Your task to perform on an android device: turn on showing notifications on the lock screen Image 0: 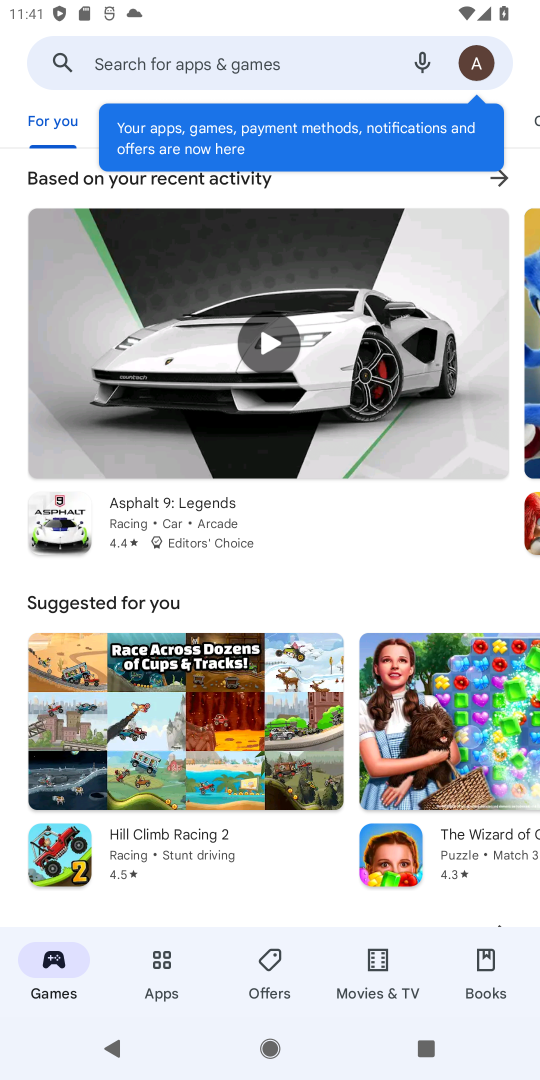
Step 0: press home button
Your task to perform on an android device: turn on showing notifications on the lock screen Image 1: 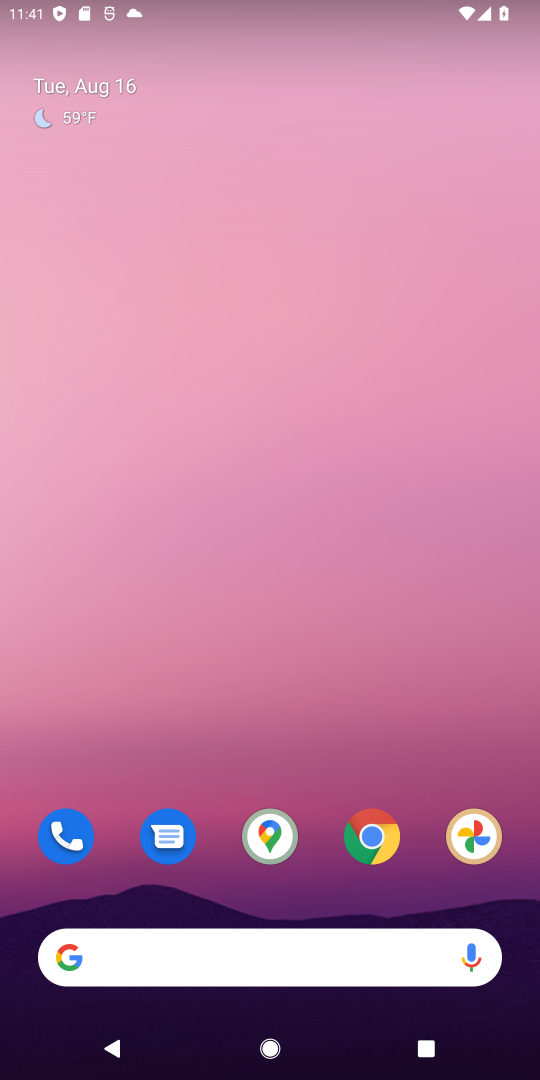
Step 1: drag from (235, 967) to (283, 275)
Your task to perform on an android device: turn on showing notifications on the lock screen Image 2: 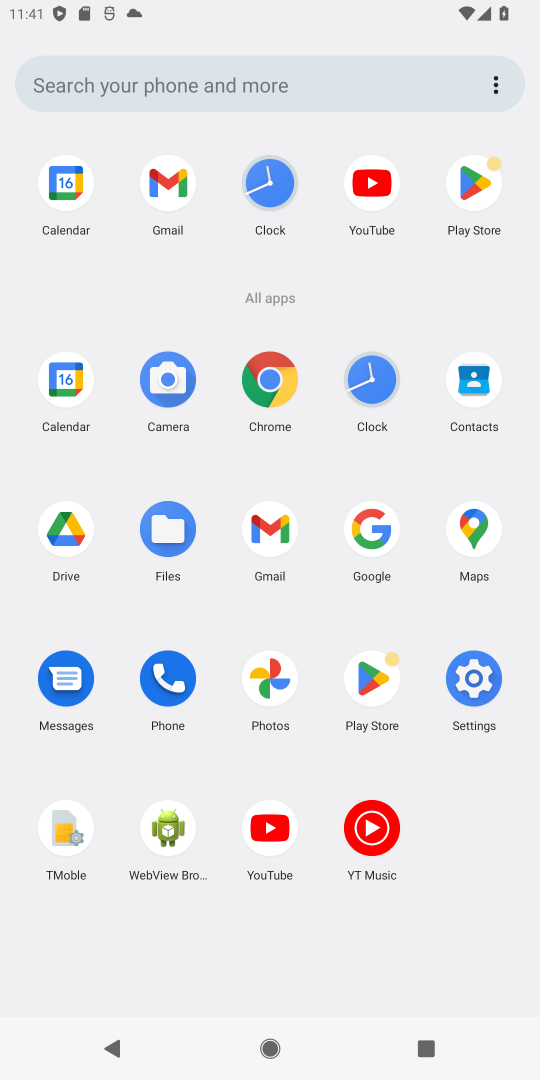
Step 2: click (472, 678)
Your task to perform on an android device: turn on showing notifications on the lock screen Image 3: 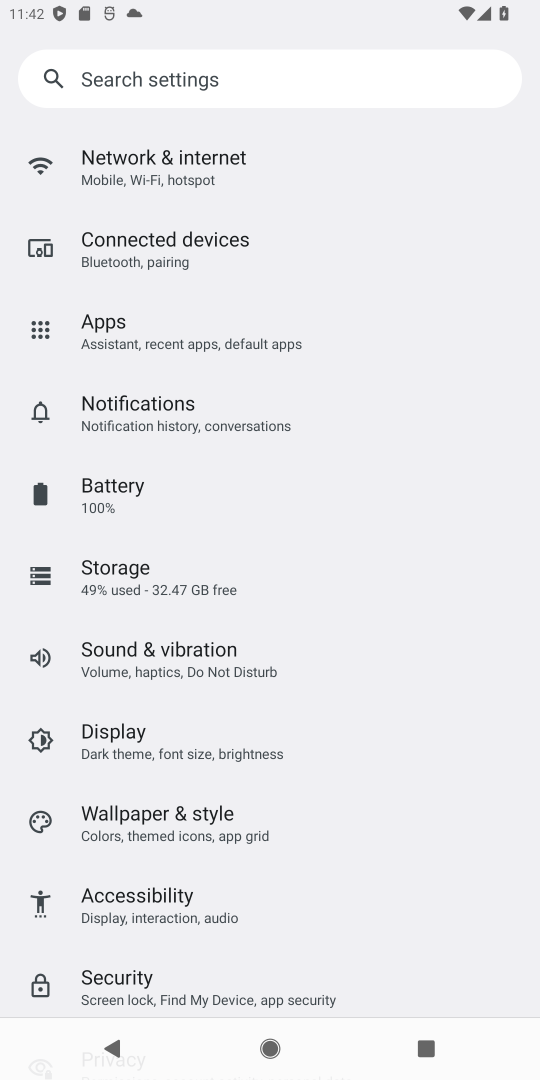
Step 3: click (169, 410)
Your task to perform on an android device: turn on showing notifications on the lock screen Image 4: 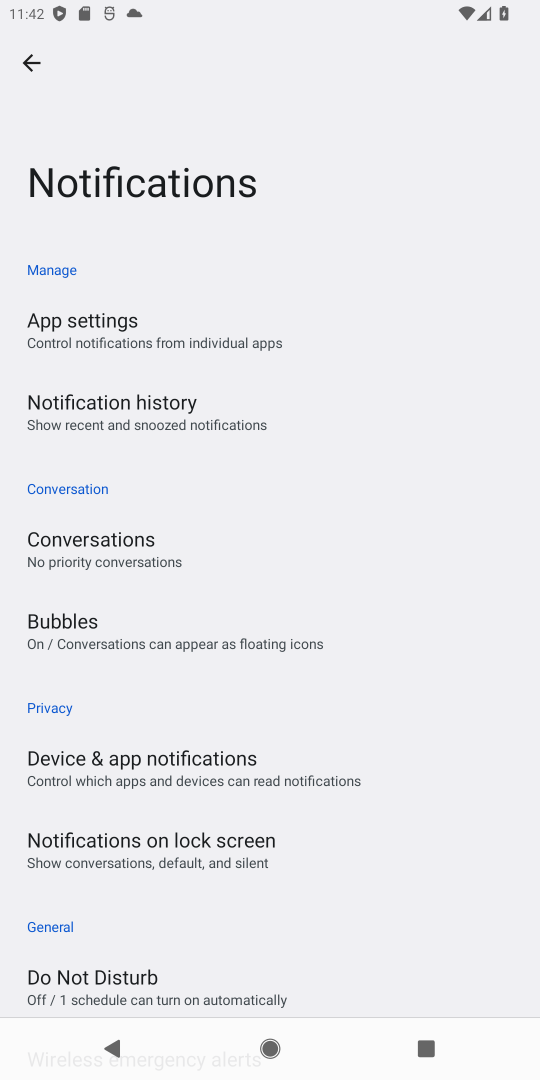
Step 4: click (134, 851)
Your task to perform on an android device: turn on showing notifications on the lock screen Image 5: 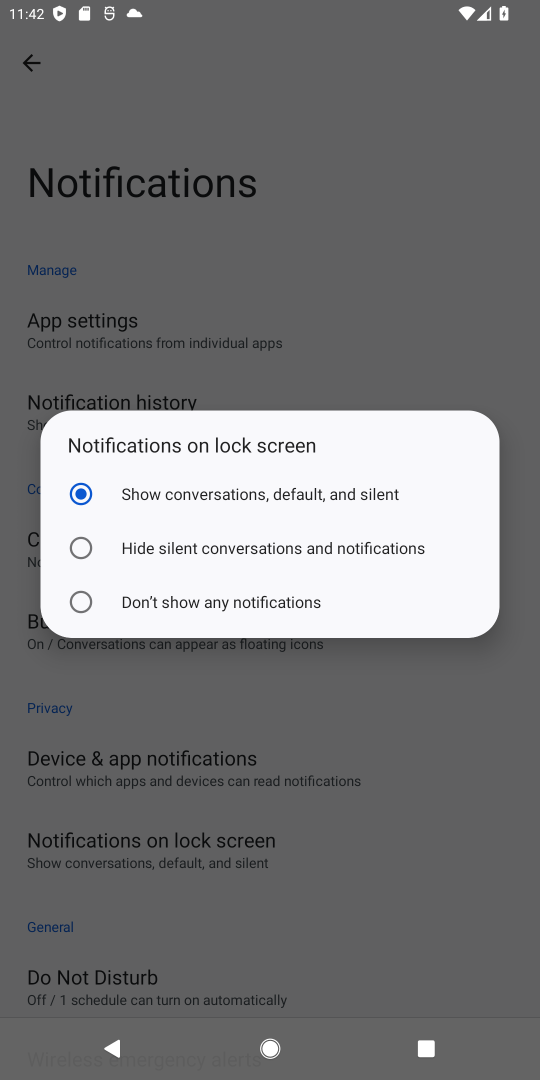
Step 5: click (81, 494)
Your task to perform on an android device: turn on showing notifications on the lock screen Image 6: 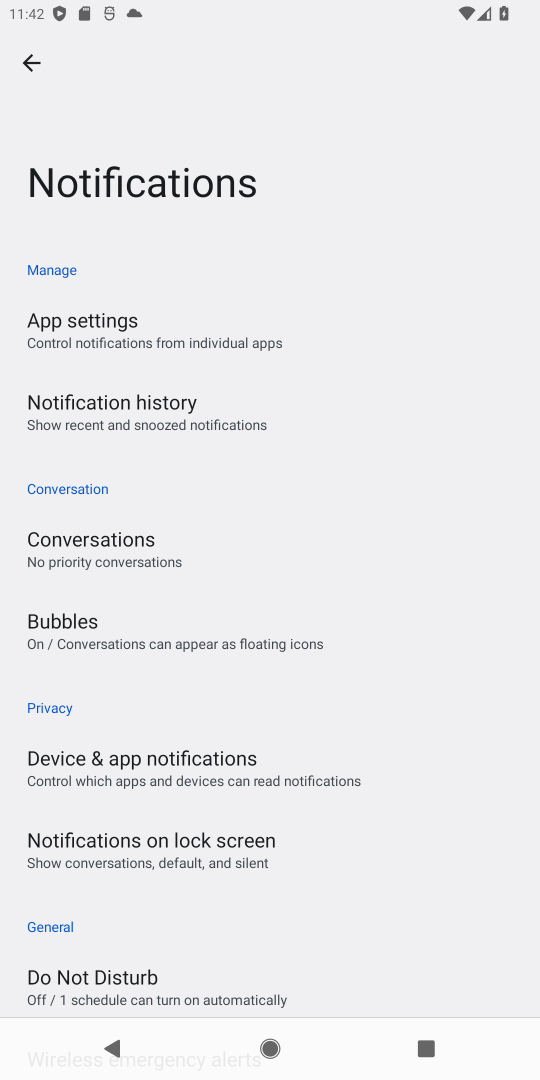
Step 6: task complete